Your task to perform on an android device: turn on javascript in the chrome app Image 0: 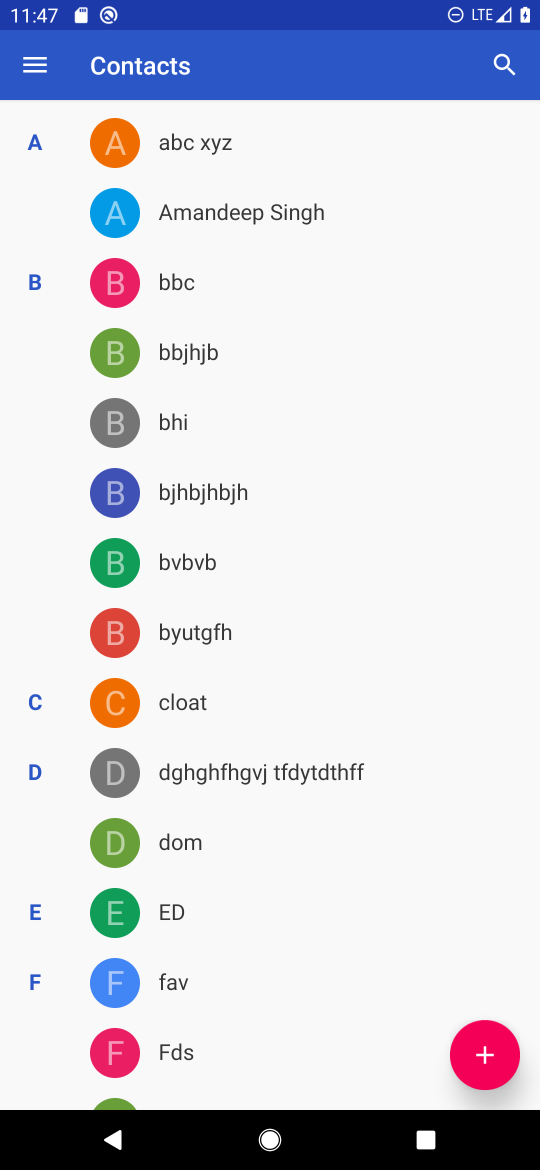
Step 0: press home button
Your task to perform on an android device: turn on javascript in the chrome app Image 1: 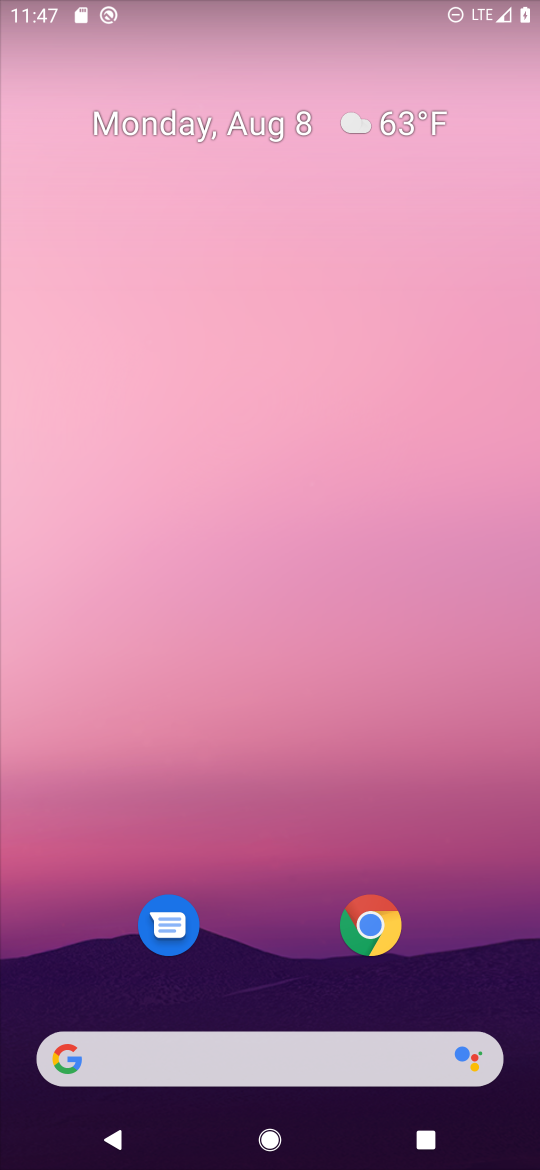
Step 1: drag from (248, 761) to (330, 83)
Your task to perform on an android device: turn on javascript in the chrome app Image 2: 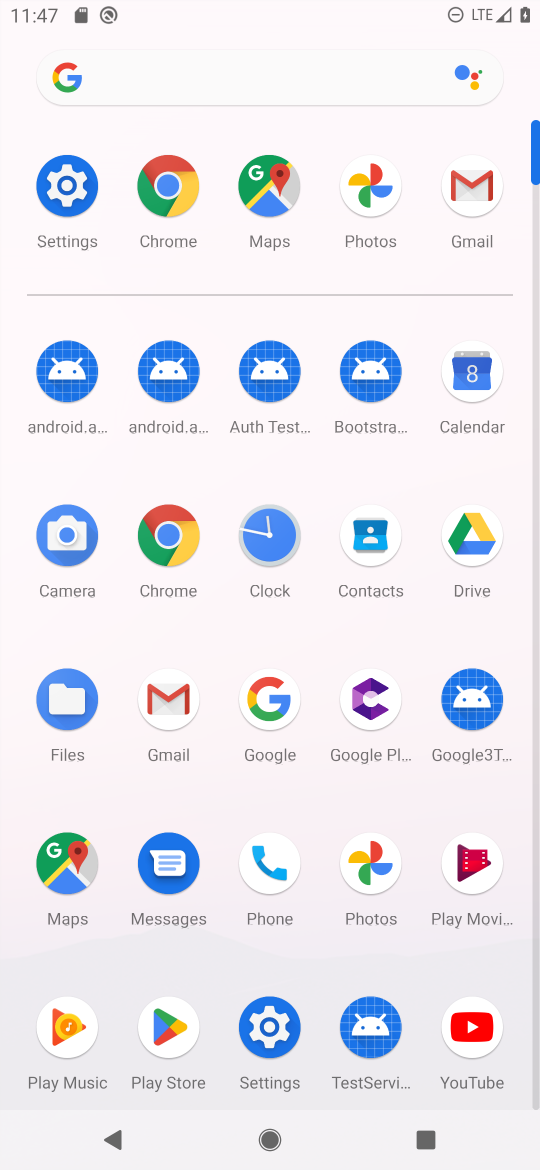
Step 2: click (170, 538)
Your task to perform on an android device: turn on javascript in the chrome app Image 3: 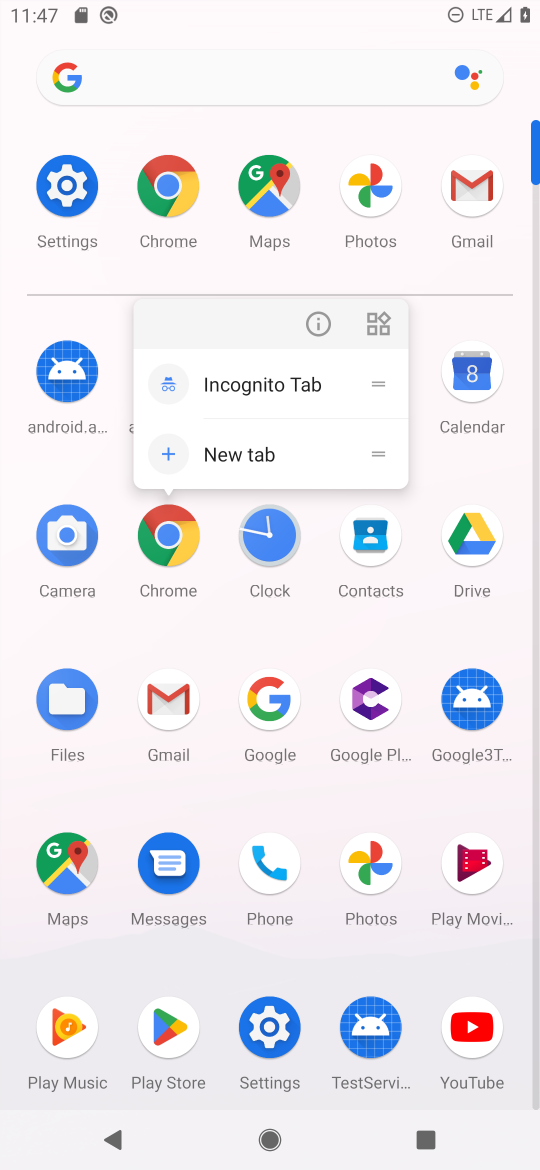
Step 3: click (170, 538)
Your task to perform on an android device: turn on javascript in the chrome app Image 4: 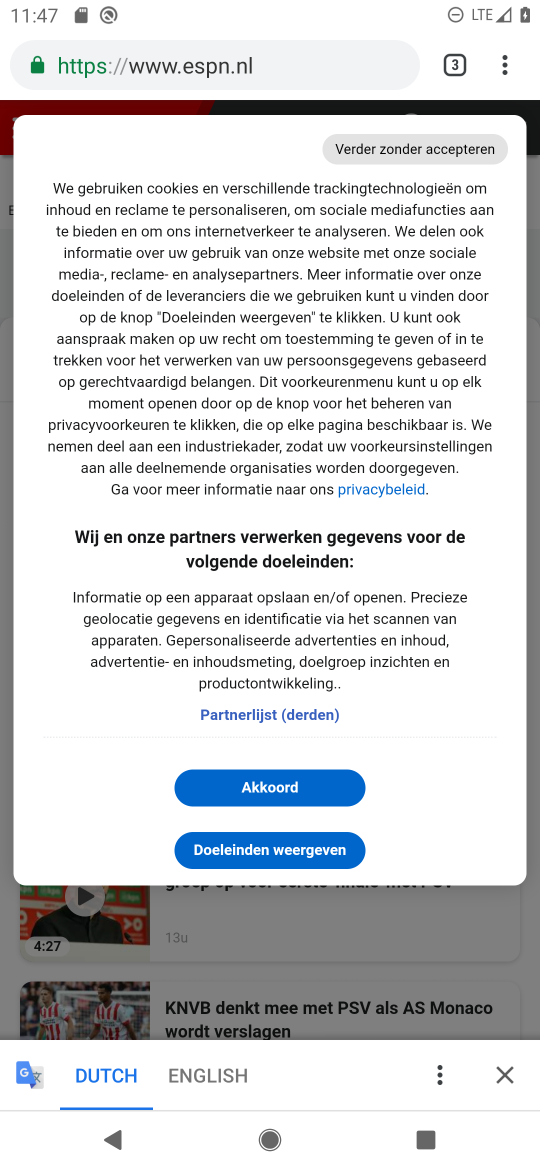
Step 4: drag from (507, 50) to (285, 863)
Your task to perform on an android device: turn on javascript in the chrome app Image 5: 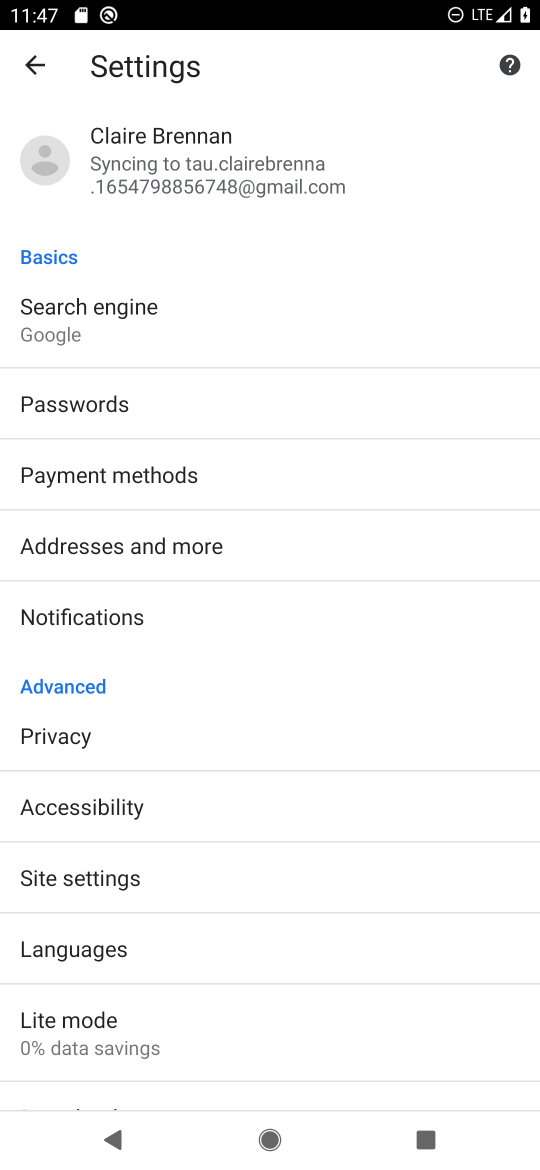
Step 5: click (113, 883)
Your task to perform on an android device: turn on javascript in the chrome app Image 6: 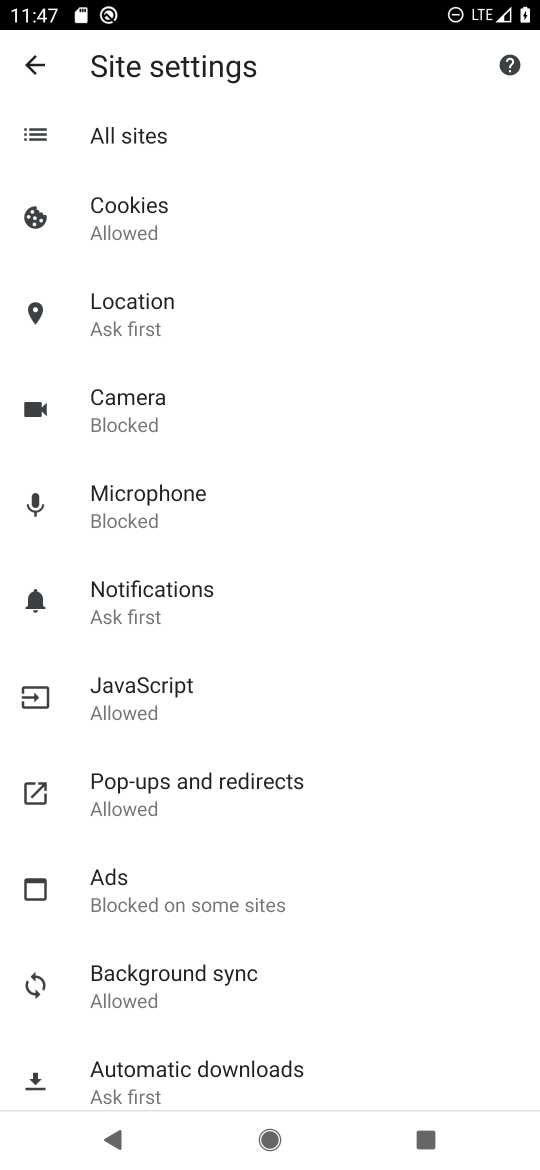
Step 6: click (127, 698)
Your task to perform on an android device: turn on javascript in the chrome app Image 7: 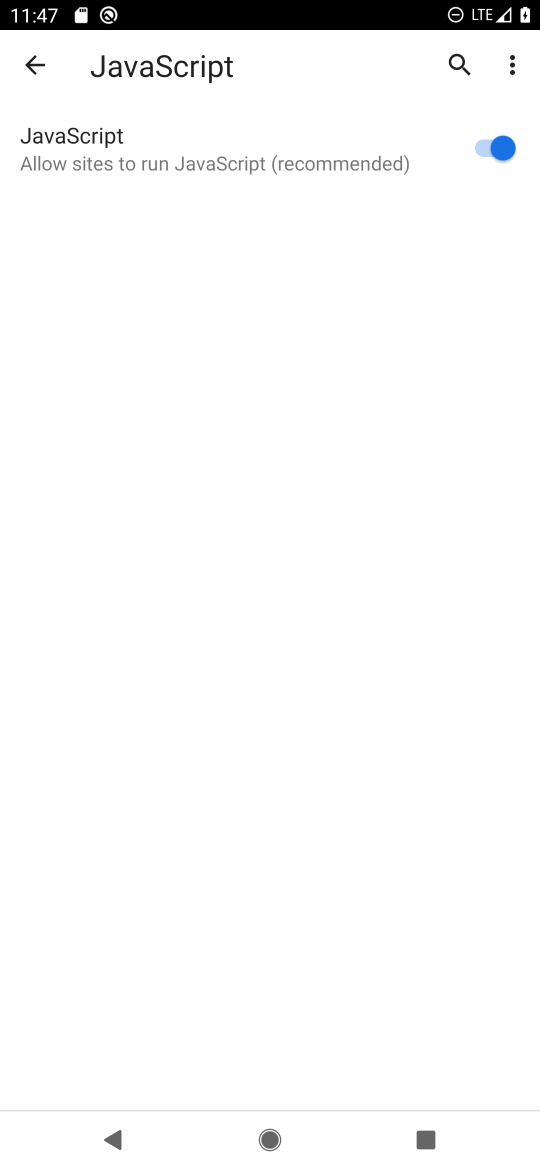
Step 7: task complete